Your task to perform on an android device: Open accessibility settings Image 0: 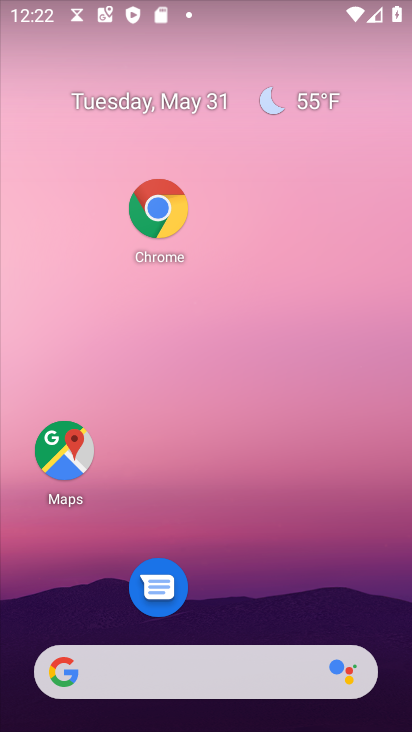
Step 0: drag from (266, 600) to (230, 232)
Your task to perform on an android device: Open accessibility settings Image 1: 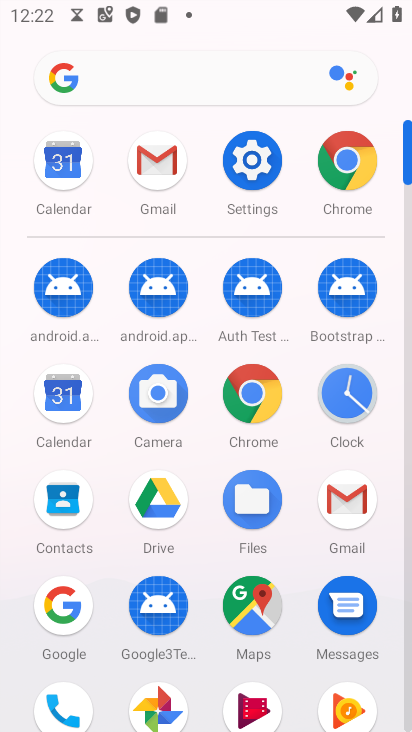
Step 1: click (251, 167)
Your task to perform on an android device: Open accessibility settings Image 2: 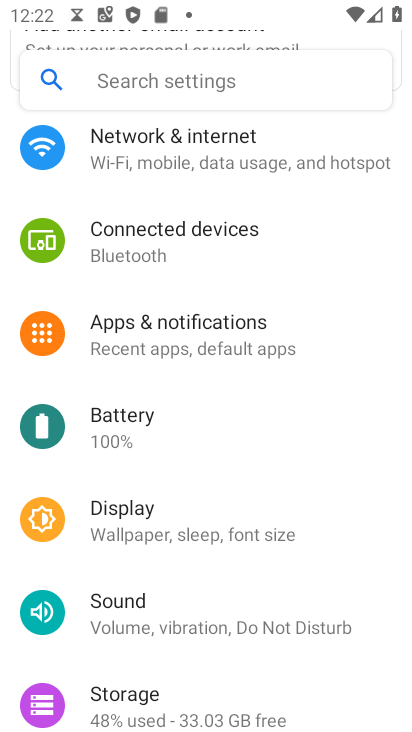
Step 2: drag from (183, 609) to (134, 69)
Your task to perform on an android device: Open accessibility settings Image 3: 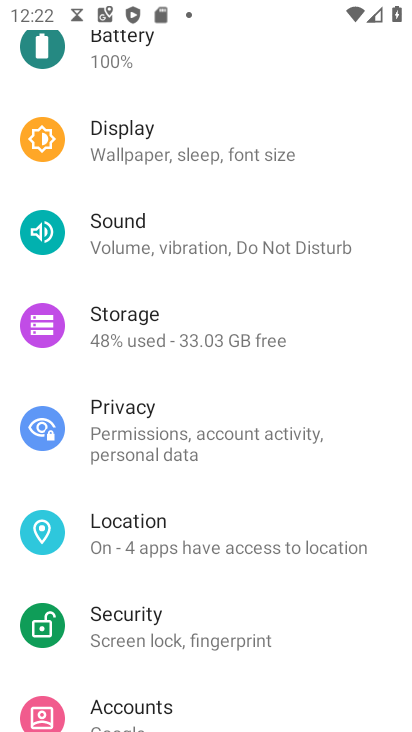
Step 3: drag from (278, 698) to (255, 326)
Your task to perform on an android device: Open accessibility settings Image 4: 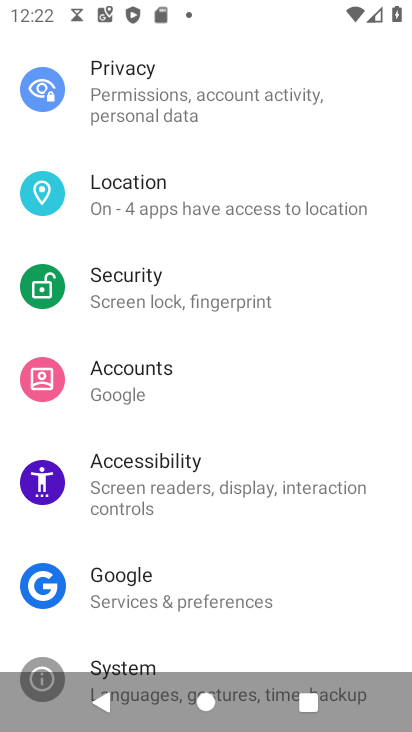
Step 4: click (169, 479)
Your task to perform on an android device: Open accessibility settings Image 5: 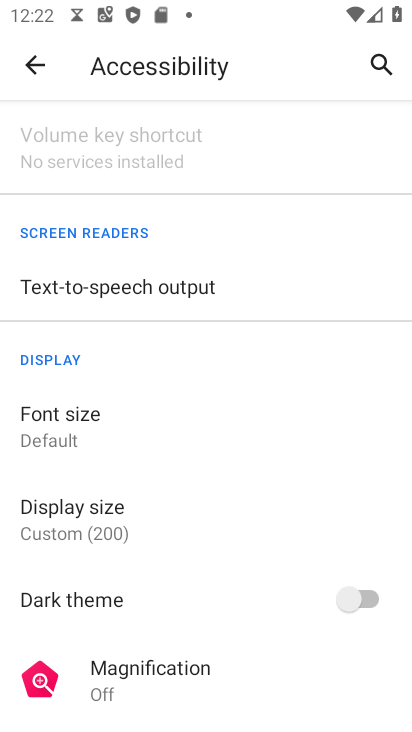
Step 5: task complete